Your task to perform on an android device: uninstall "WhatsApp Messenger" Image 0: 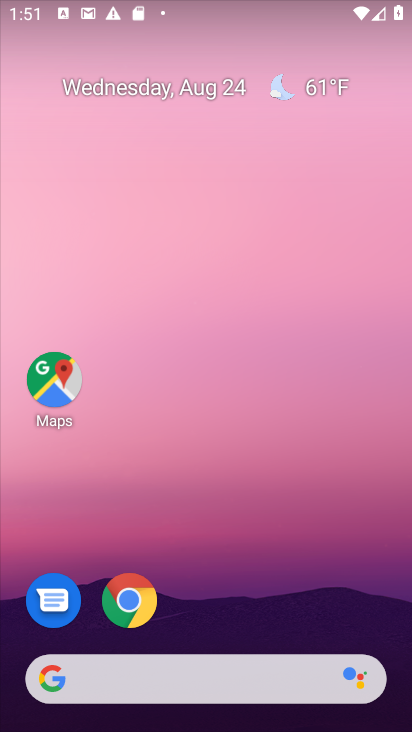
Step 0: drag from (243, 632) to (231, 120)
Your task to perform on an android device: uninstall "WhatsApp Messenger" Image 1: 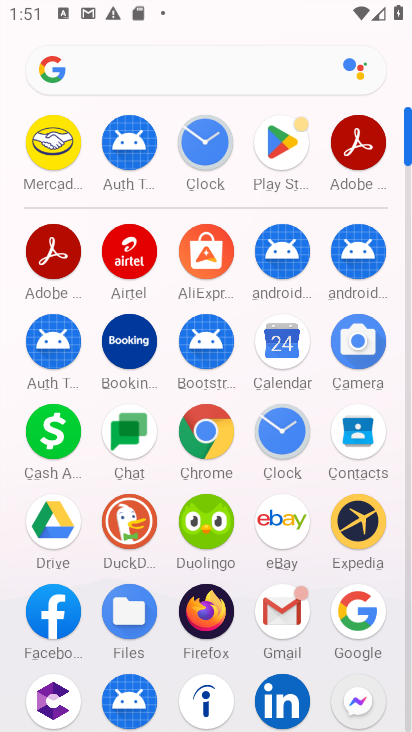
Step 1: click (281, 153)
Your task to perform on an android device: uninstall "WhatsApp Messenger" Image 2: 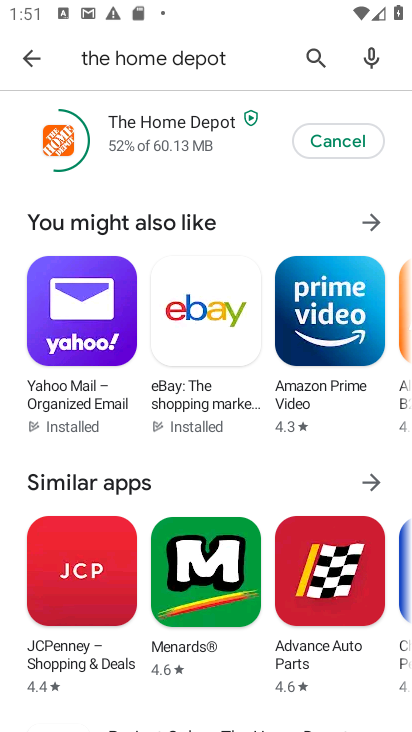
Step 2: click (312, 73)
Your task to perform on an android device: uninstall "WhatsApp Messenger" Image 3: 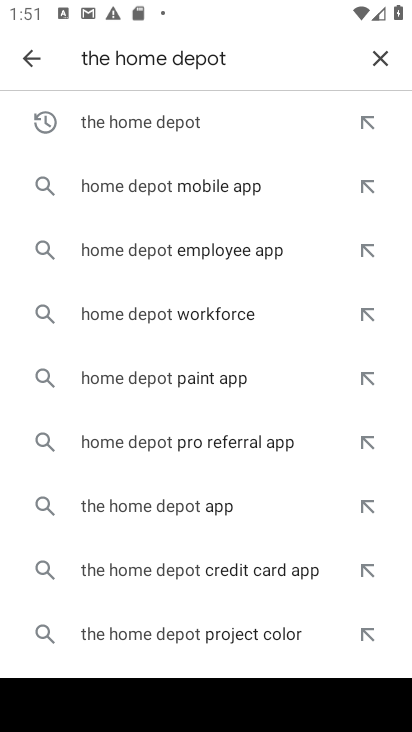
Step 3: click (370, 69)
Your task to perform on an android device: uninstall "WhatsApp Messenger" Image 4: 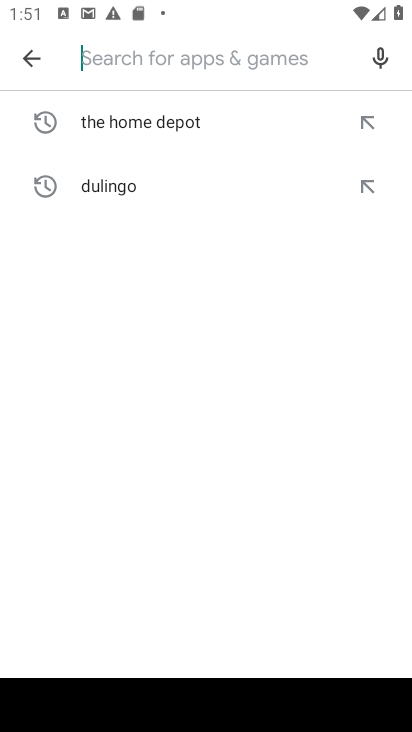
Step 4: type "whatsapp"
Your task to perform on an android device: uninstall "WhatsApp Messenger" Image 5: 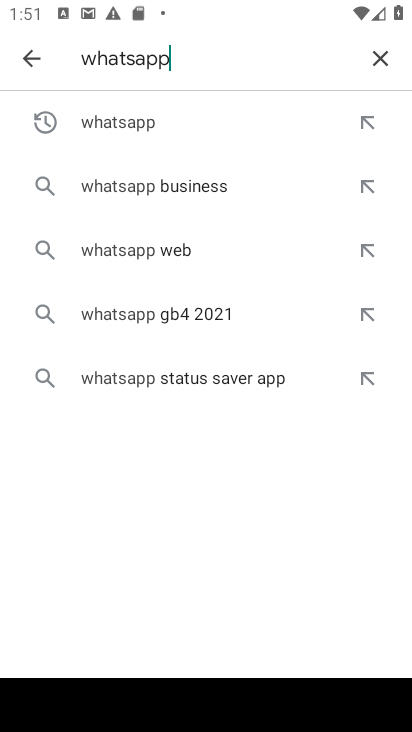
Step 5: click (209, 131)
Your task to perform on an android device: uninstall "WhatsApp Messenger" Image 6: 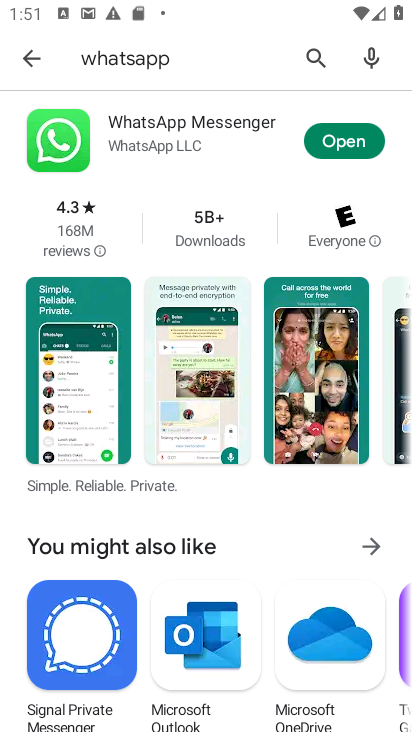
Step 6: click (340, 132)
Your task to perform on an android device: uninstall "WhatsApp Messenger" Image 7: 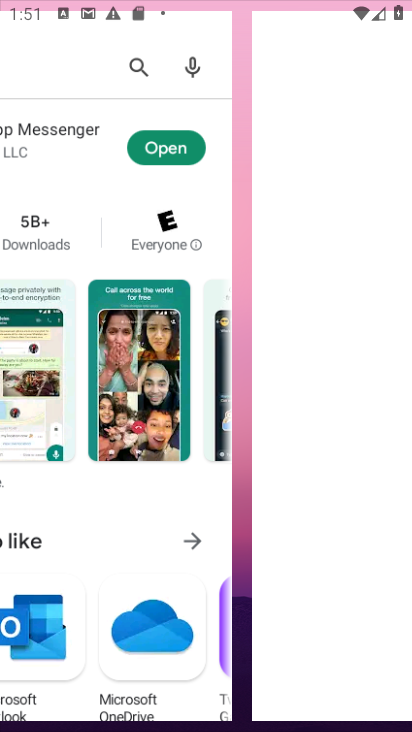
Step 7: task complete